Your task to perform on an android device: check google app version Image 0: 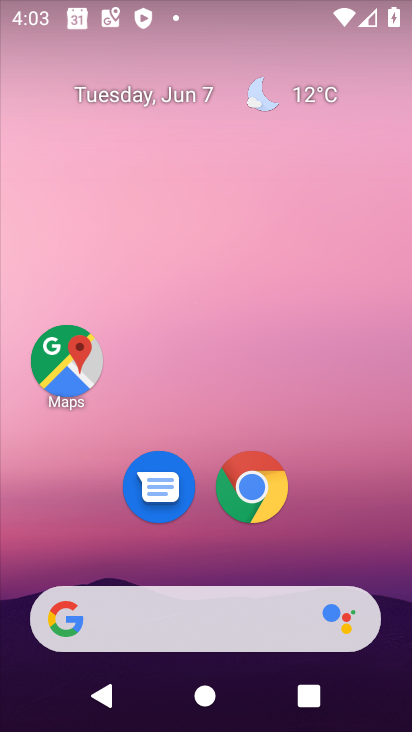
Step 0: drag from (185, 564) to (263, 2)
Your task to perform on an android device: check google app version Image 1: 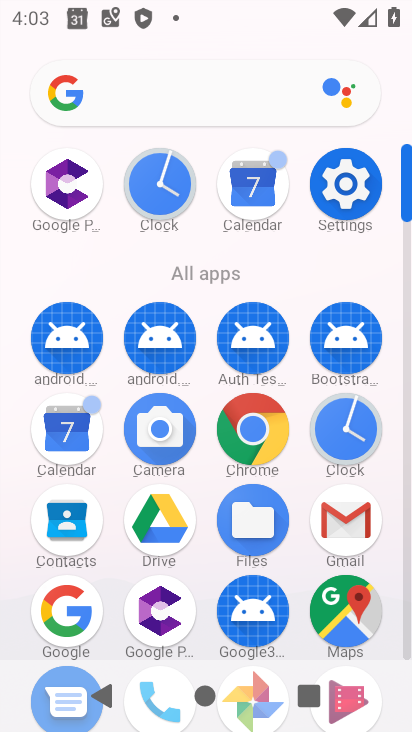
Step 1: click (69, 618)
Your task to perform on an android device: check google app version Image 2: 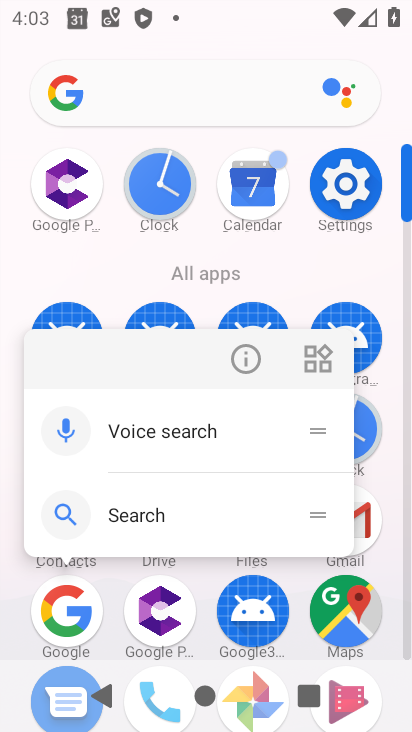
Step 2: click (245, 351)
Your task to perform on an android device: check google app version Image 3: 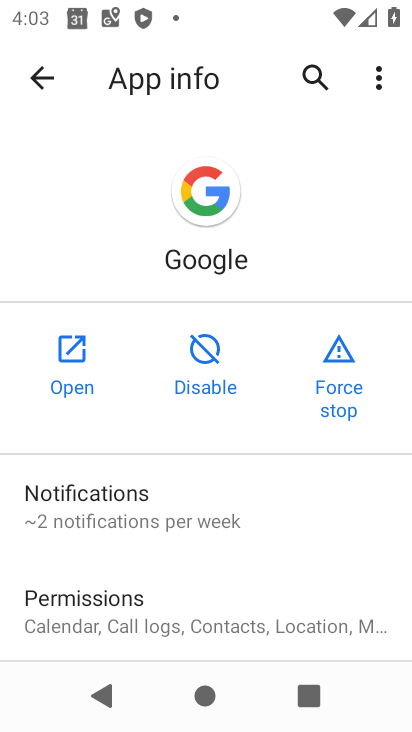
Step 3: drag from (204, 612) to (291, 4)
Your task to perform on an android device: check google app version Image 4: 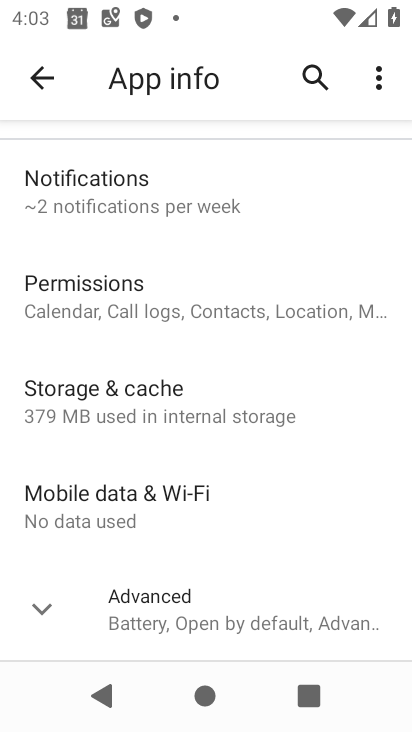
Step 4: click (184, 621)
Your task to perform on an android device: check google app version Image 5: 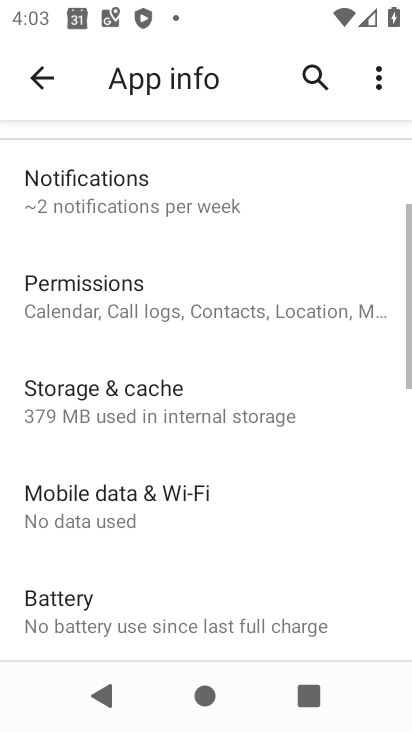
Step 5: task complete